Your task to perform on an android device: uninstall "Walmart Shopping & Grocery" Image 0: 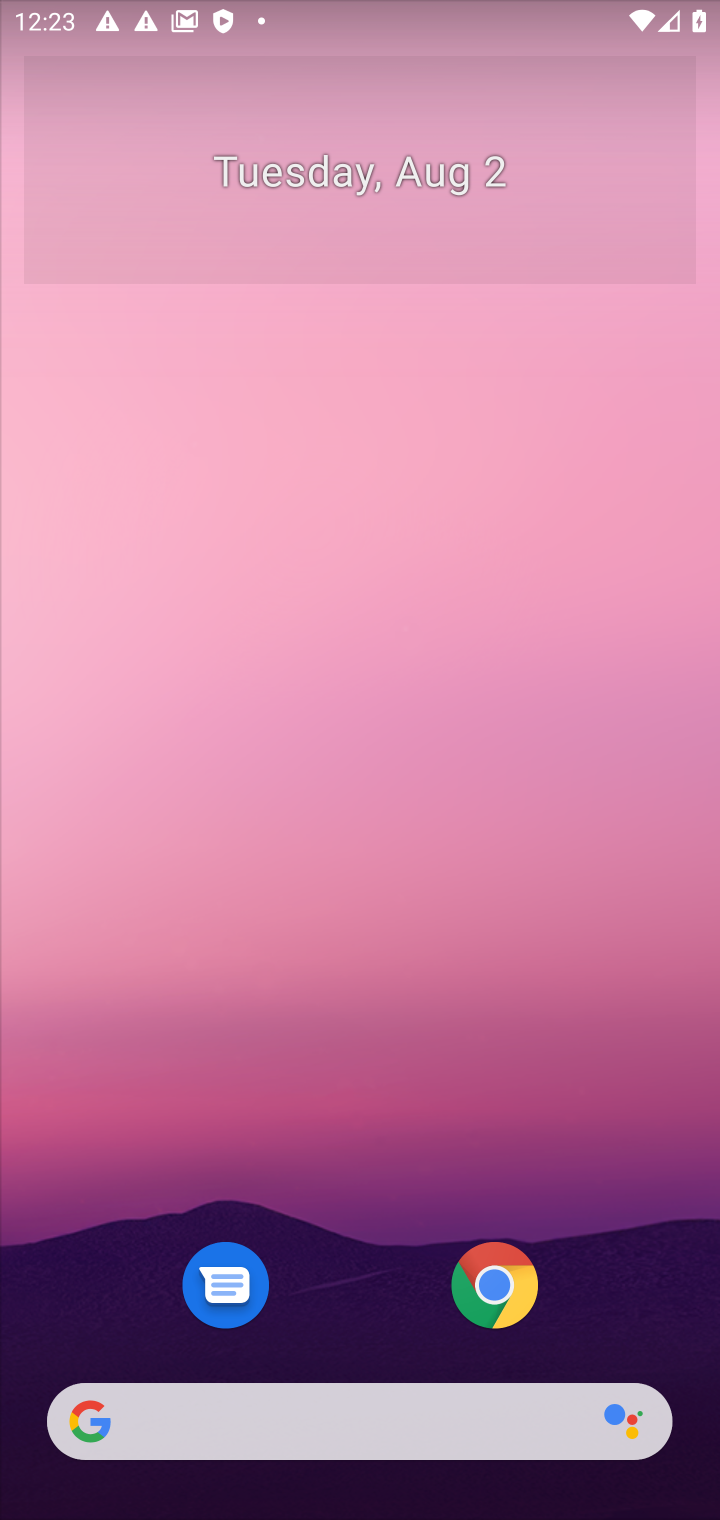
Step 0: drag from (410, 1113) to (321, 260)
Your task to perform on an android device: uninstall "Walmart Shopping & Grocery" Image 1: 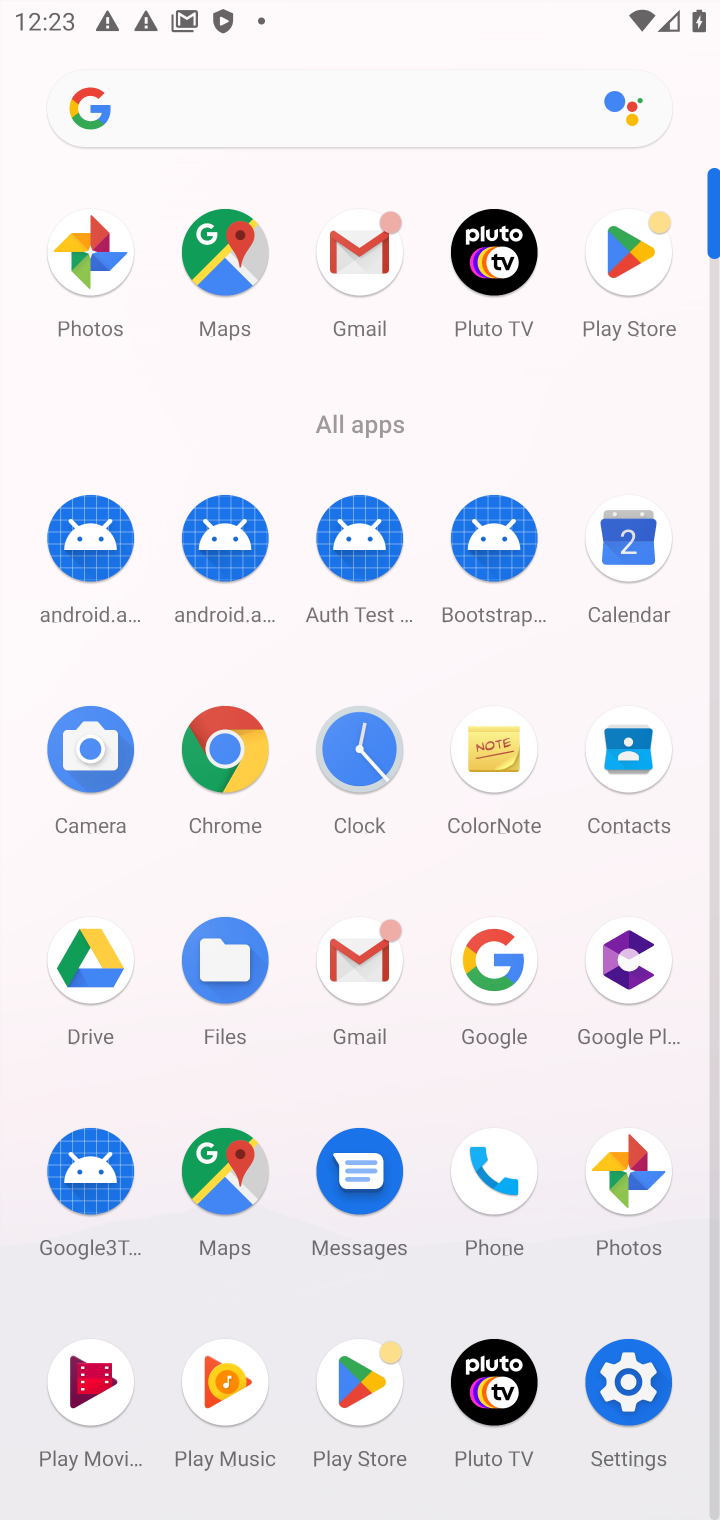
Step 1: click (377, 1388)
Your task to perform on an android device: uninstall "Walmart Shopping & Grocery" Image 2: 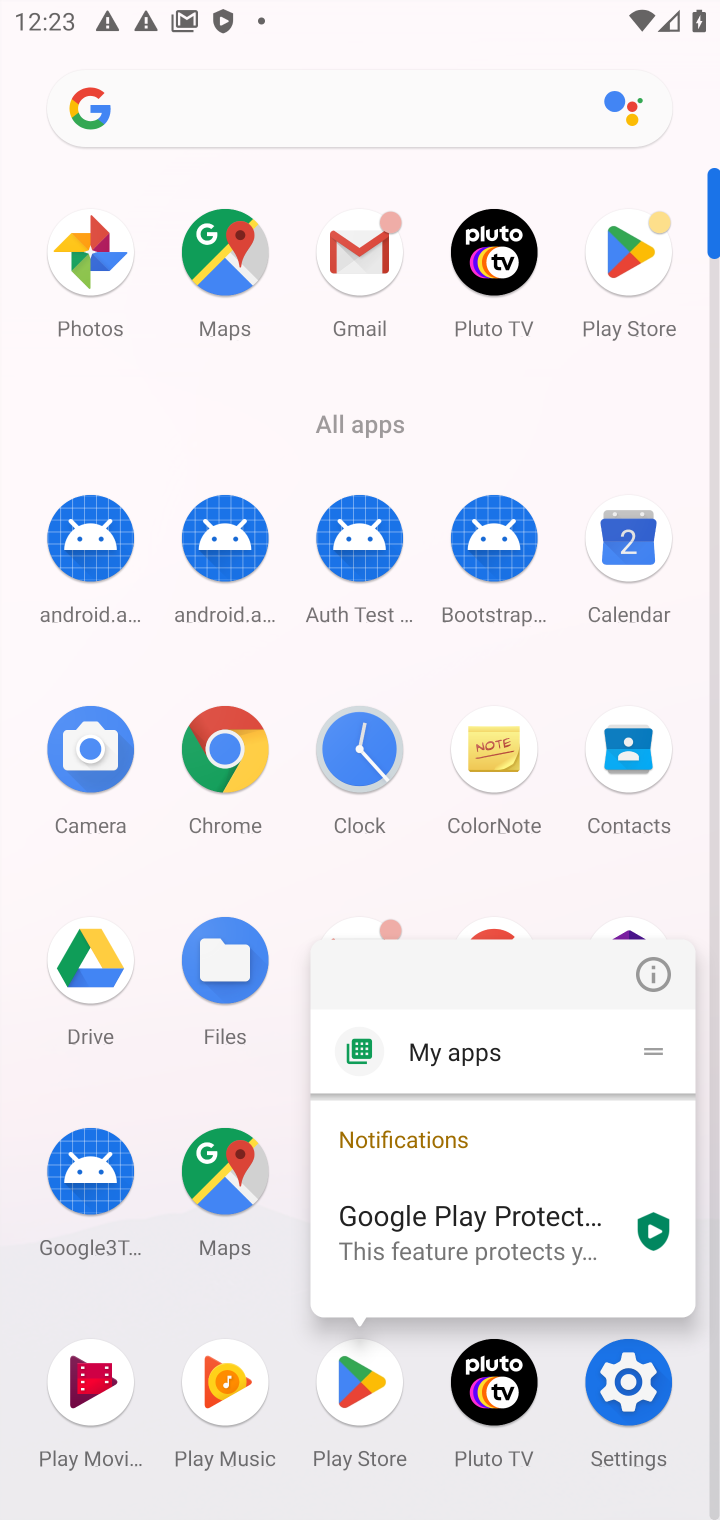
Step 2: click (348, 1382)
Your task to perform on an android device: uninstall "Walmart Shopping & Grocery" Image 3: 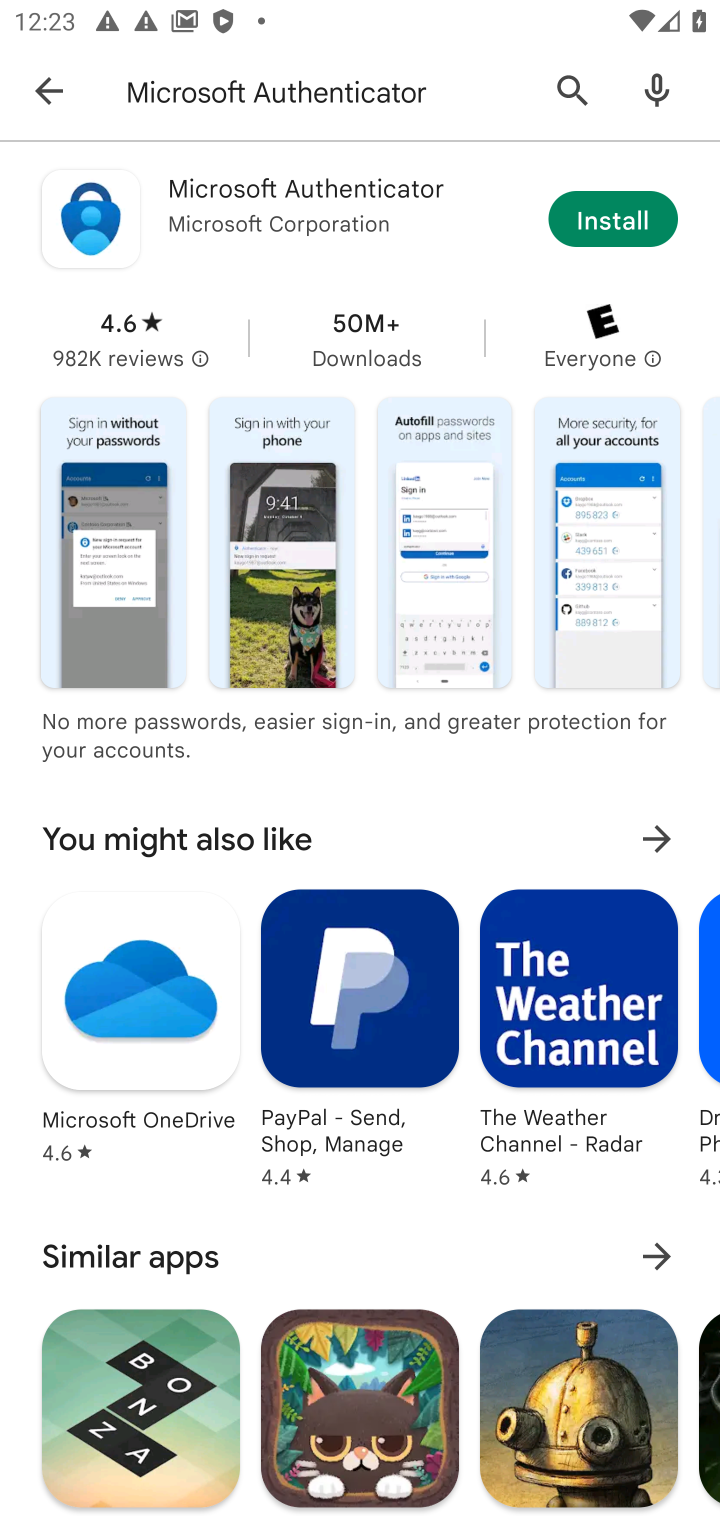
Step 3: click (332, 90)
Your task to perform on an android device: uninstall "Walmart Shopping & Grocery" Image 4: 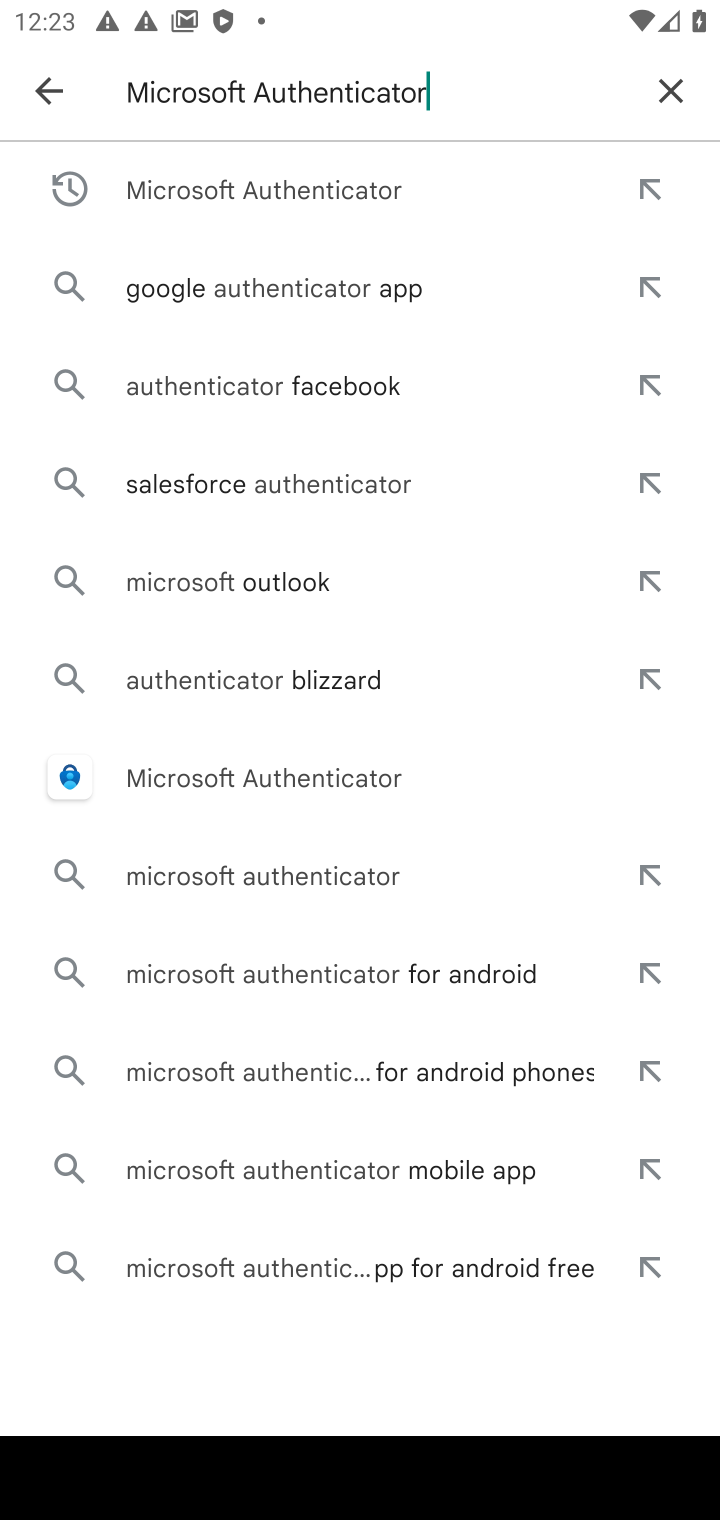
Step 4: click (672, 92)
Your task to perform on an android device: uninstall "Walmart Shopping & Grocery" Image 5: 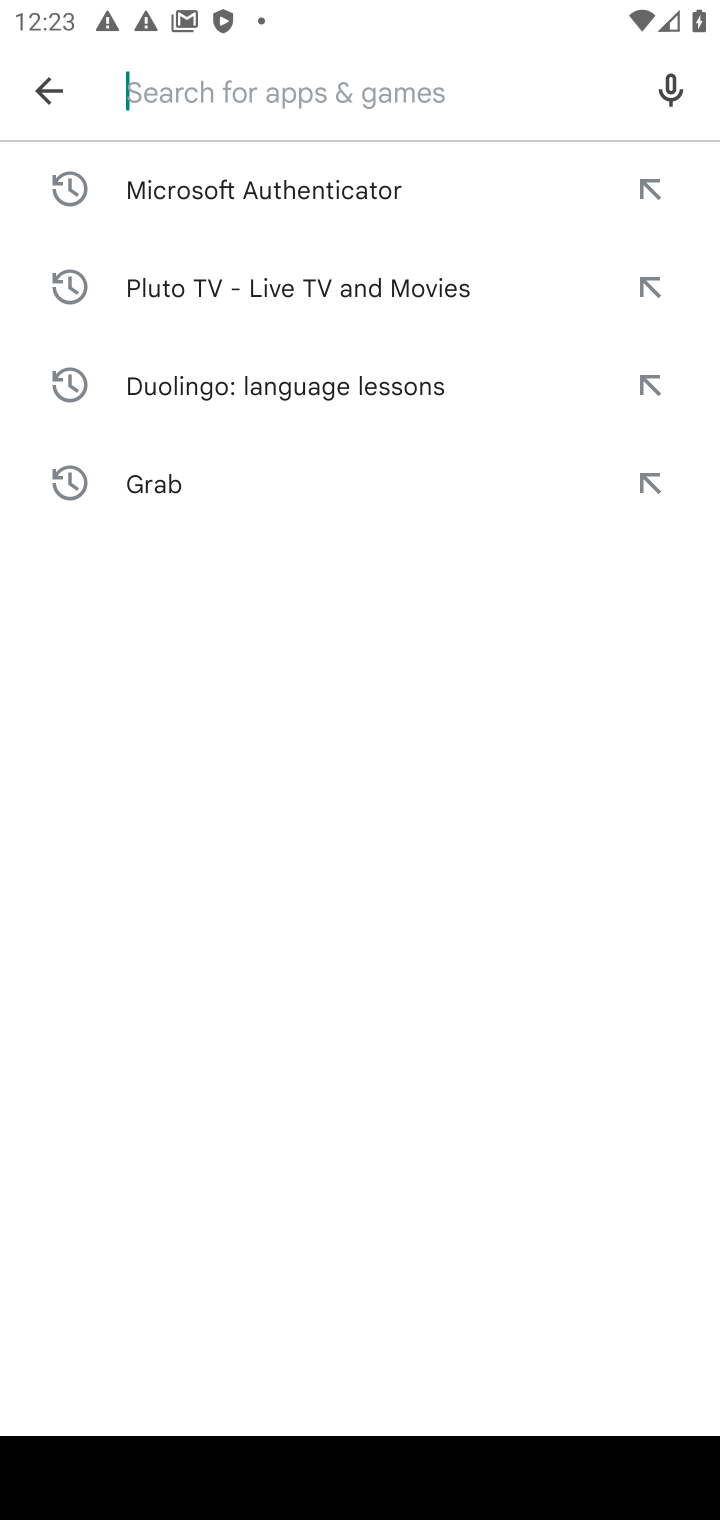
Step 5: type "Walmart Shopping & Grocery"
Your task to perform on an android device: uninstall "Walmart Shopping & Grocery" Image 6: 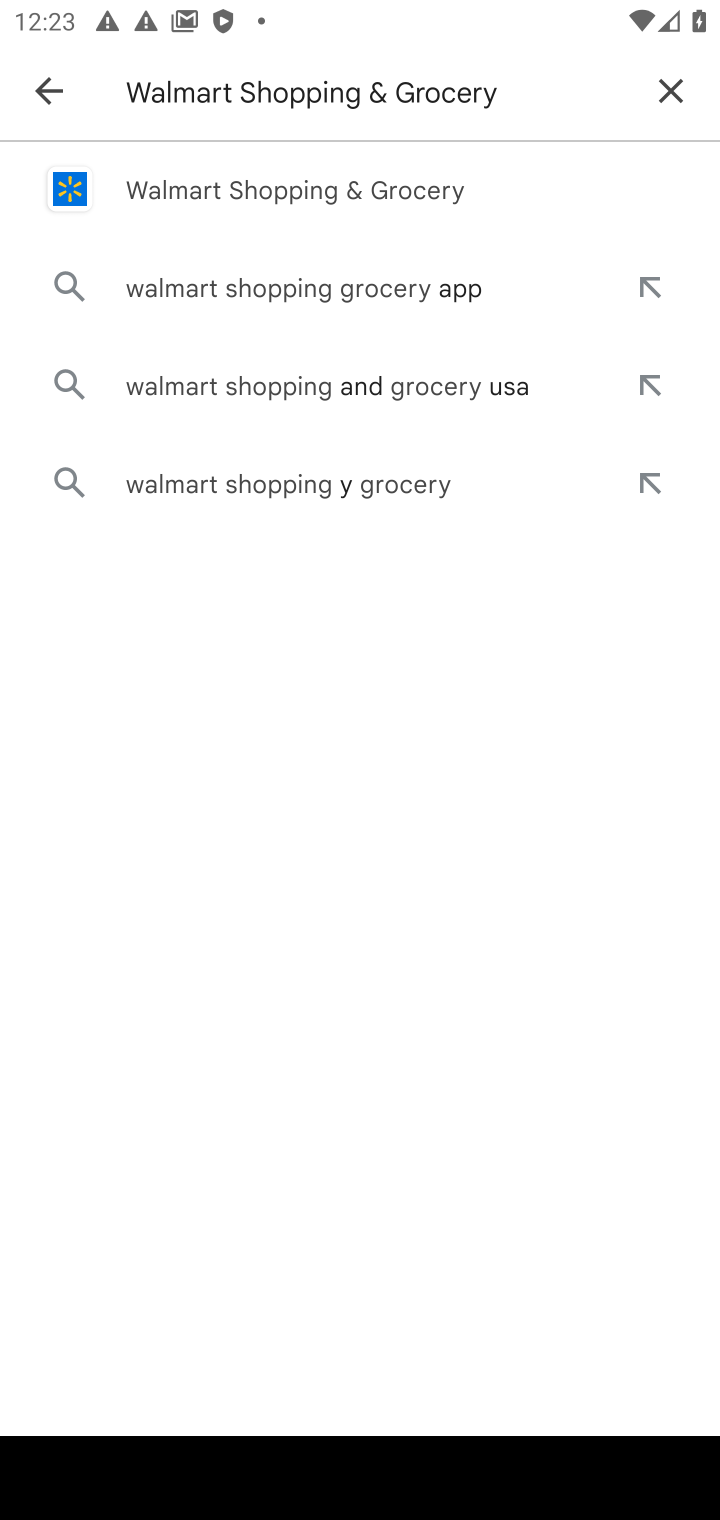
Step 6: click (153, 192)
Your task to perform on an android device: uninstall "Walmart Shopping & Grocery" Image 7: 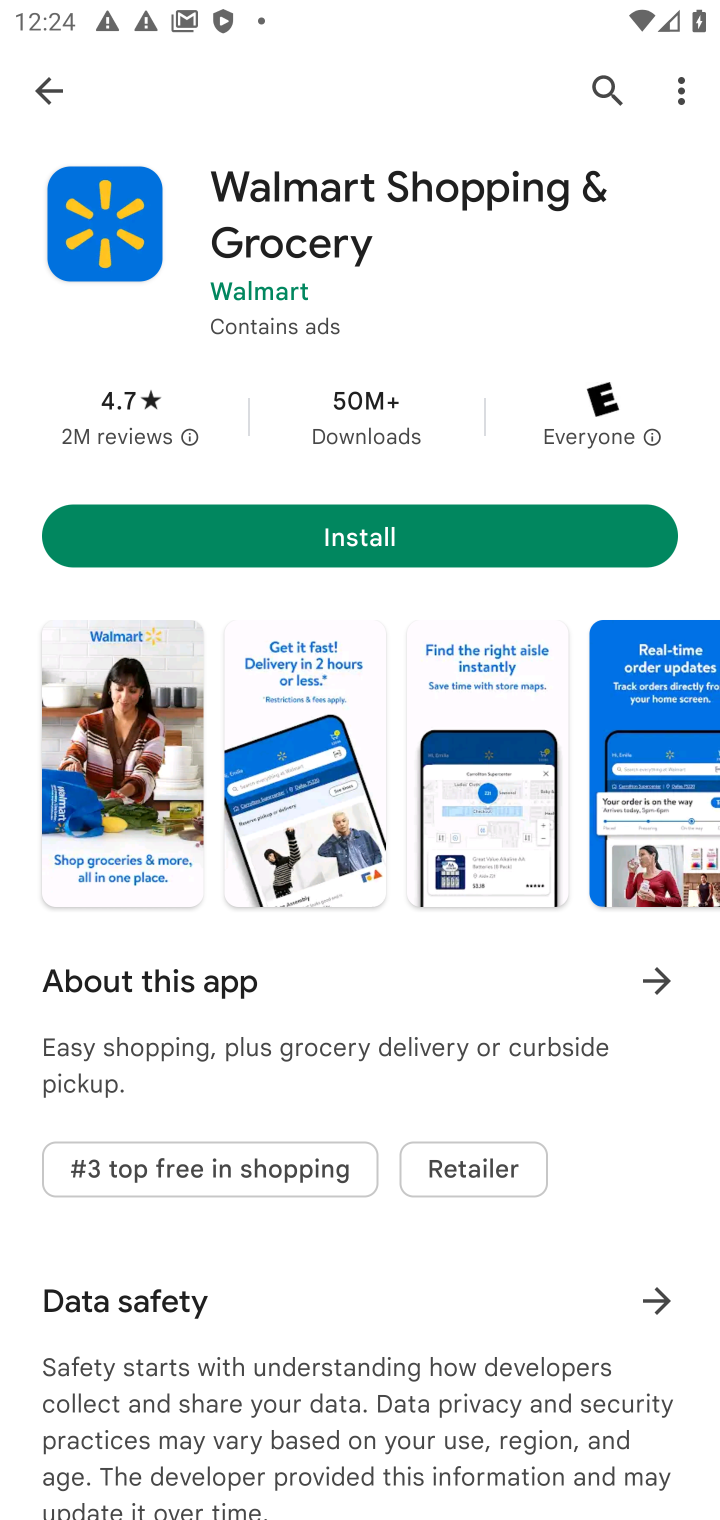
Step 7: task complete